Your task to perform on an android device: Open Google Maps Image 0: 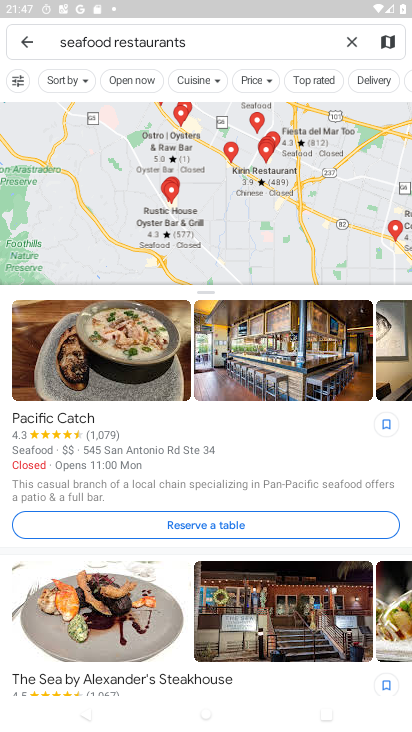
Step 0: click (18, 45)
Your task to perform on an android device: Open Google Maps Image 1: 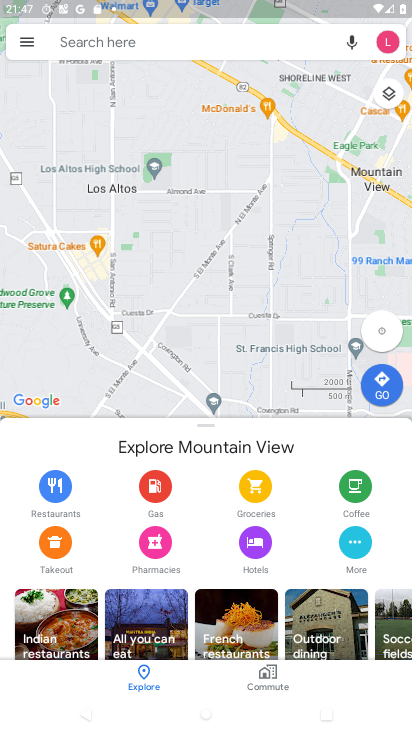
Step 1: task complete